Your task to perform on an android device: toggle airplane mode Image 0: 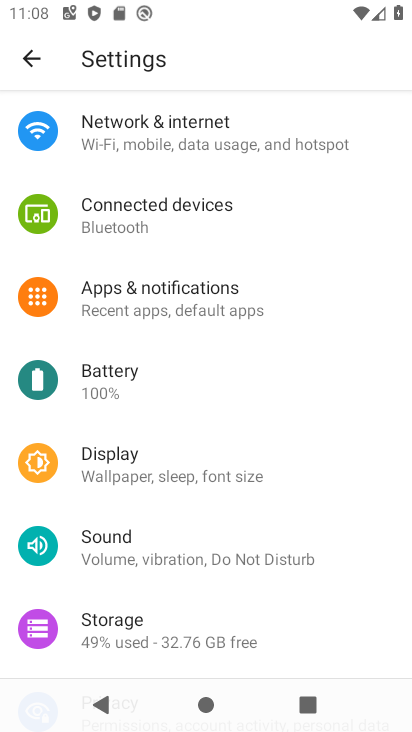
Step 0: click (118, 125)
Your task to perform on an android device: toggle airplane mode Image 1: 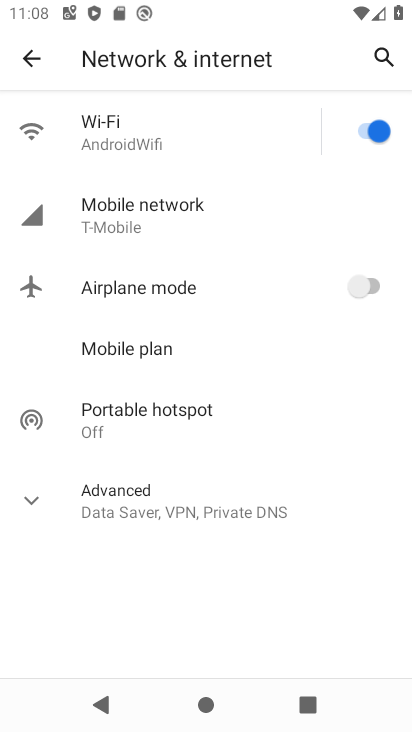
Step 1: task complete